Your task to perform on an android device: open app "Fetch Rewards" (install if not already installed) and enter user name: "Westwood@yahoo.com" and password: "qualifying" Image 0: 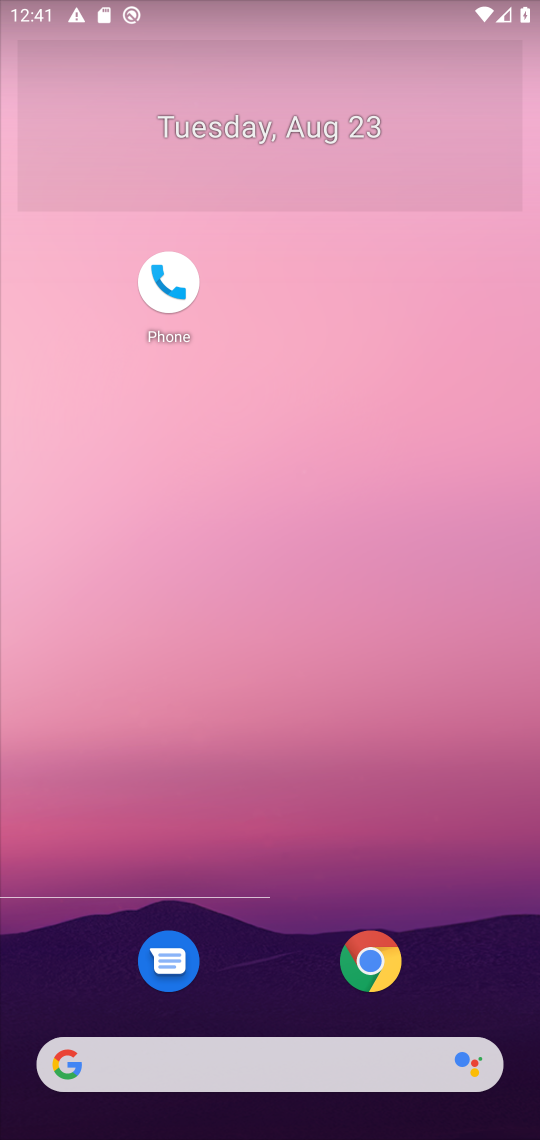
Step 0: drag from (288, 1002) to (210, 24)
Your task to perform on an android device: open app "Fetch Rewards" (install if not already installed) and enter user name: "Westwood@yahoo.com" and password: "qualifying" Image 1: 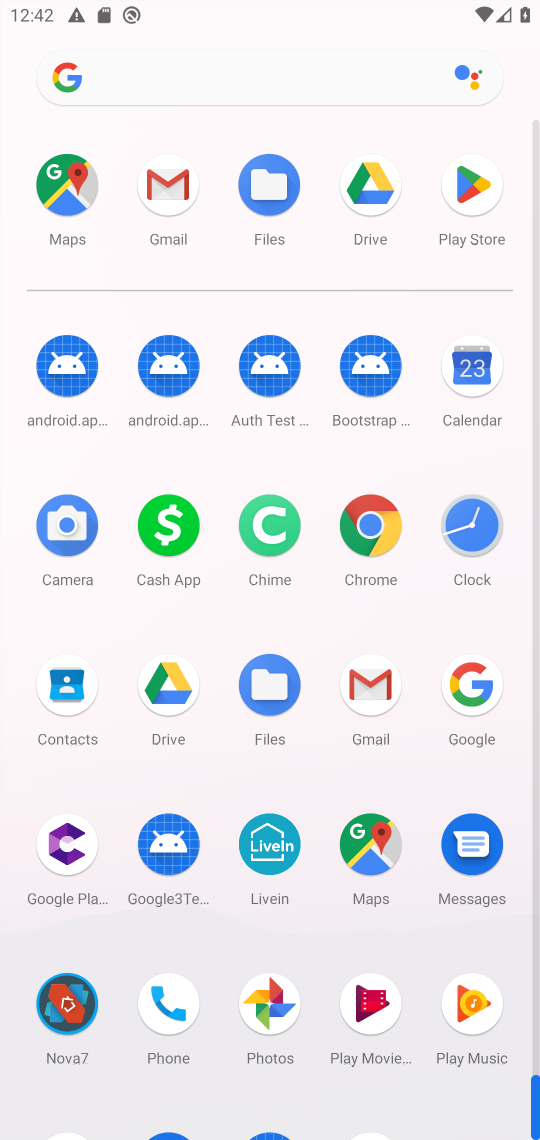
Step 1: click (471, 210)
Your task to perform on an android device: open app "Fetch Rewards" (install if not already installed) and enter user name: "Westwood@yahoo.com" and password: "qualifying" Image 2: 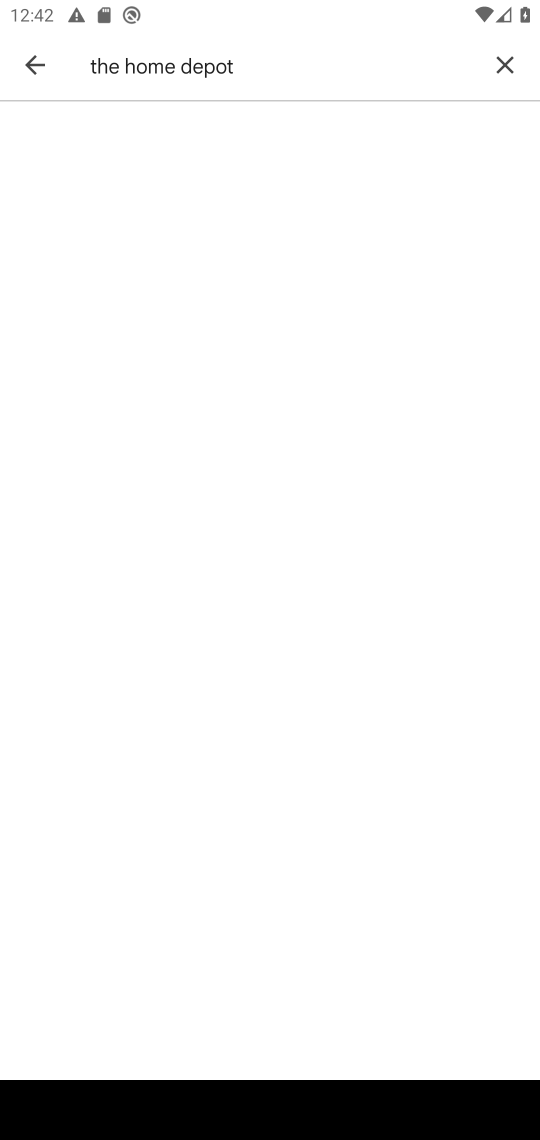
Step 2: click (495, 137)
Your task to perform on an android device: open app "Fetch Rewards" (install if not already installed) and enter user name: "Westwood@yahoo.com" and password: "qualifying" Image 3: 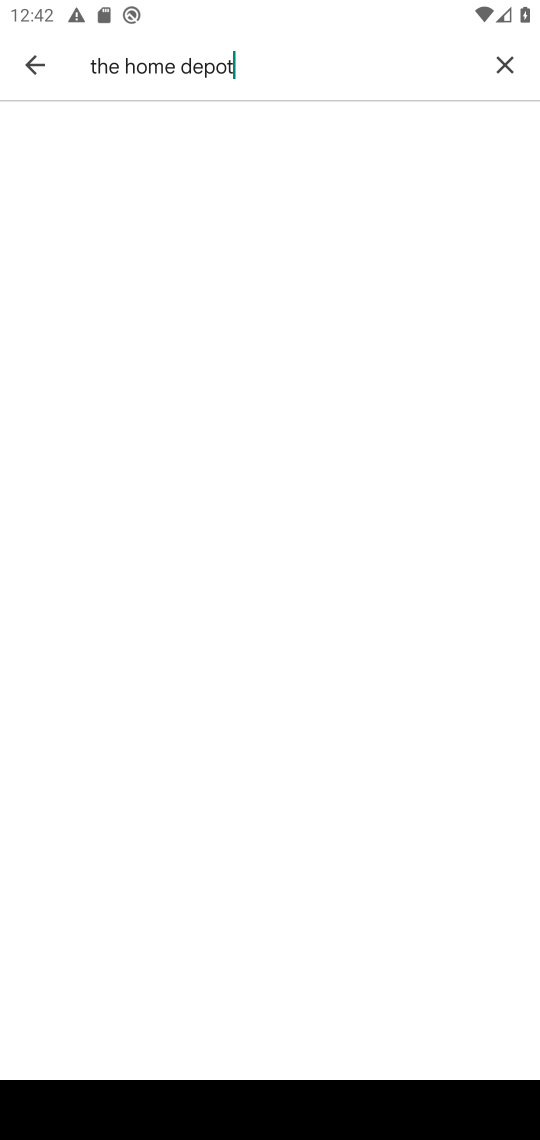
Step 3: click (506, 69)
Your task to perform on an android device: open app "Fetch Rewards" (install if not already installed) and enter user name: "Westwood@yahoo.com" and password: "qualifying" Image 4: 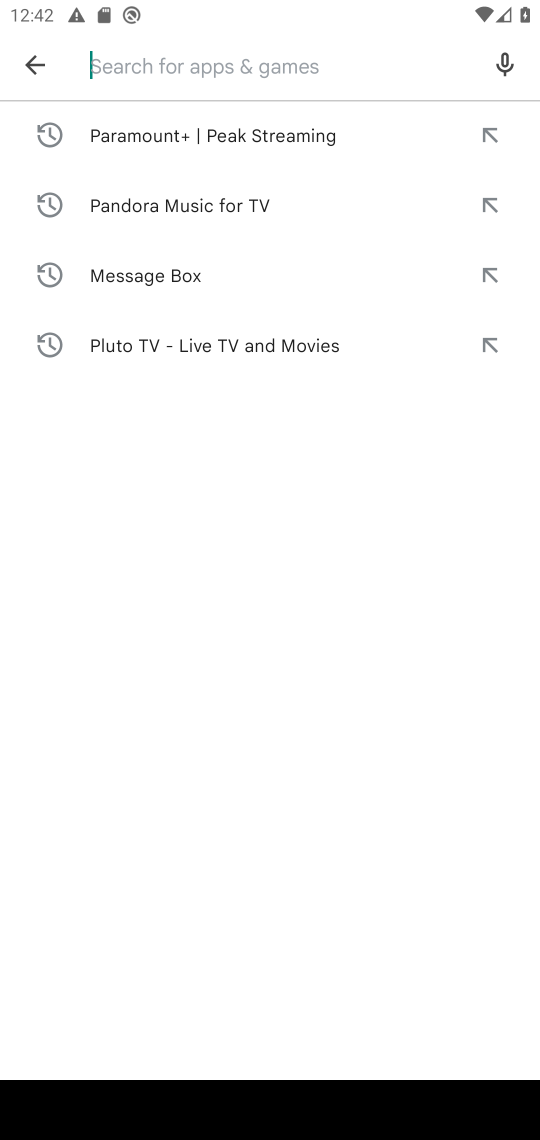
Step 4: type "fetch reward"
Your task to perform on an android device: open app "Fetch Rewards" (install if not already installed) and enter user name: "Westwood@yahoo.com" and password: "qualifying" Image 5: 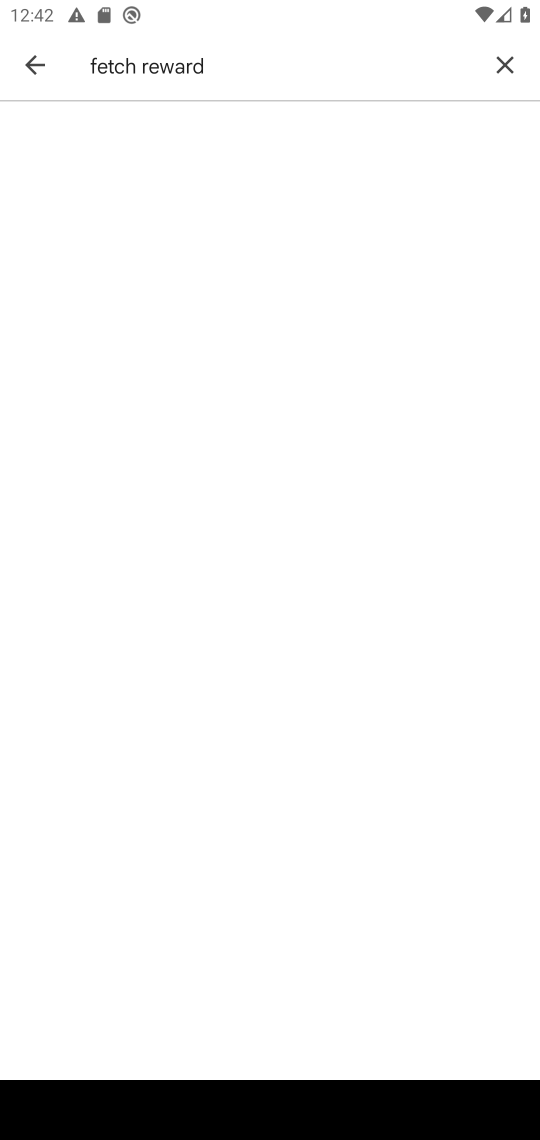
Step 5: click (315, 152)
Your task to perform on an android device: open app "Fetch Rewards" (install if not already installed) and enter user name: "Westwood@yahoo.com" and password: "qualifying" Image 6: 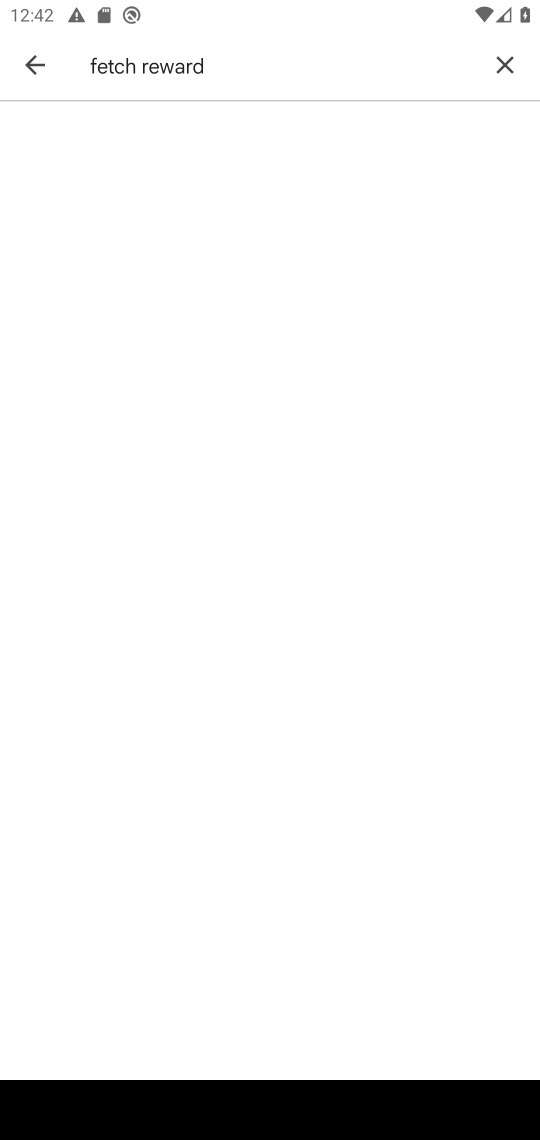
Step 6: task complete